Your task to perform on an android device: turn on the 12-hour format for clock Image 0: 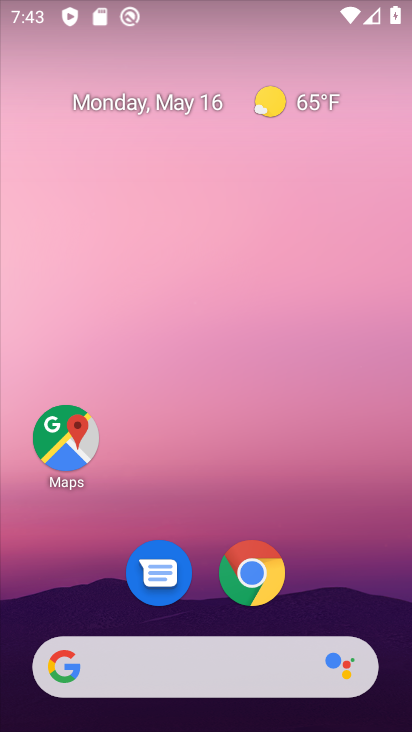
Step 0: drag from (203, 609) to (210, 38)
Your task to perform on an android device: turn on the 12-hour format for clock Image 1: 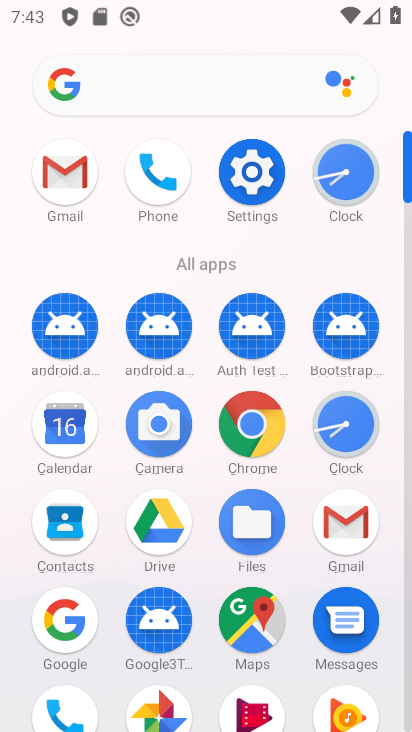
Step 1: click (344, 424)
Your task to perform on an android device: turn on the 12-hour format for clock Image 2: 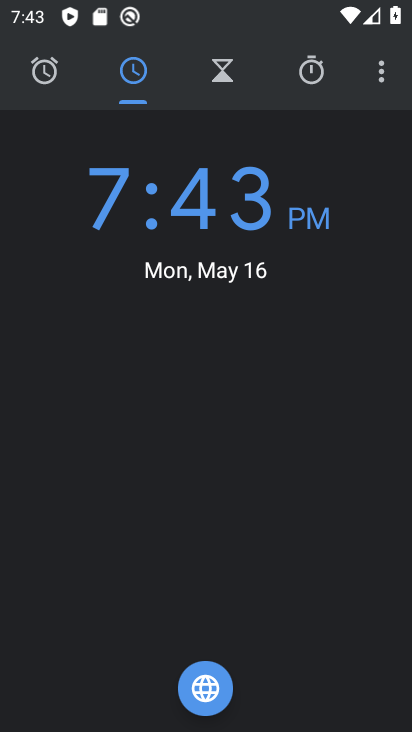
Step 2: click (373, 79)
Your task to perform on an android device: turn on the 12-hour format for clock Image 3: 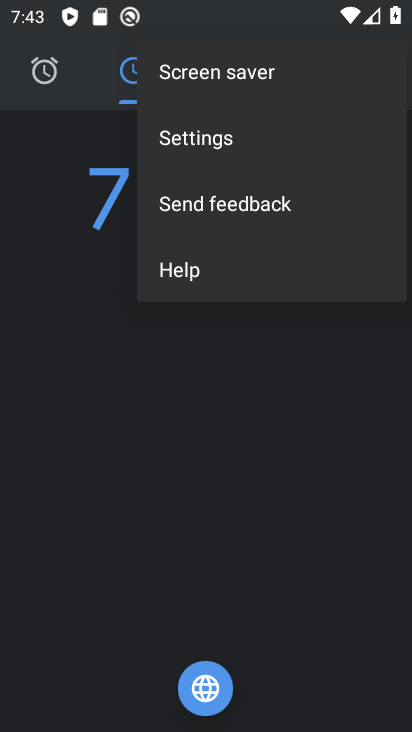
Step 3: click (281, 135)
Your task to perform on an android device: turn on the 12-hour format for clock Image 4: 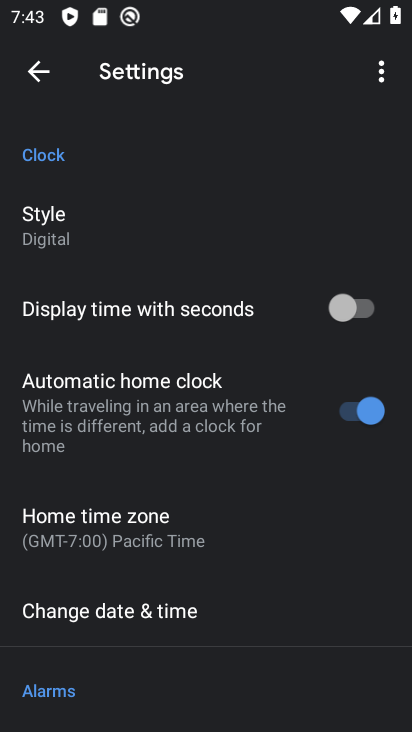
Step 4: click (107, 615)
Your task to perform on an android device: turn on the 12-hour format for clock Image 5: 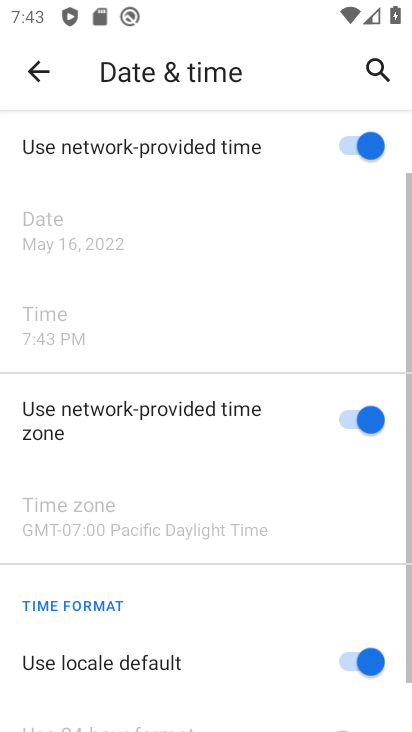
Step 5: task complete